Your task to perform on an android device: turn off notifications settings in the gmail app Image 0: 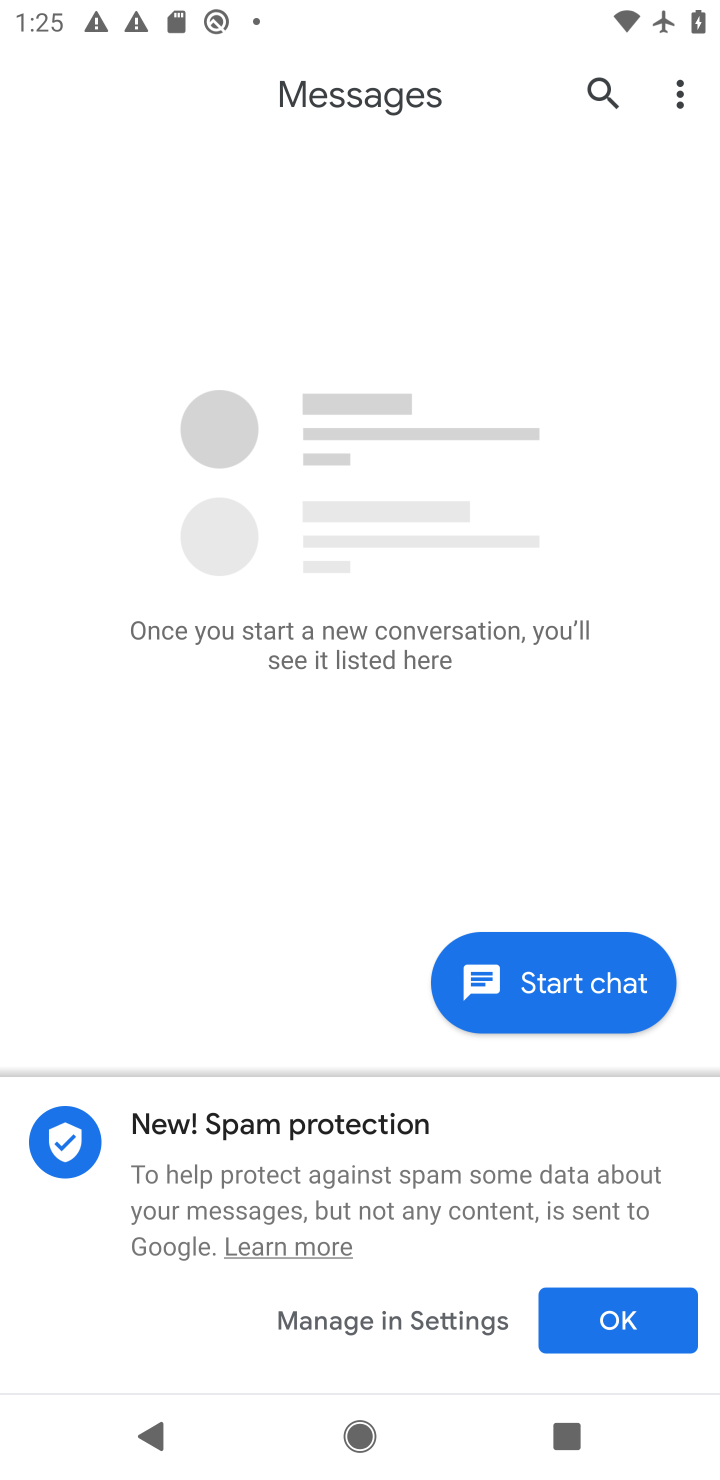
Step 0: press home button
Your task to perform on an android device: turn off notifications settings in the gmail app Image 1: 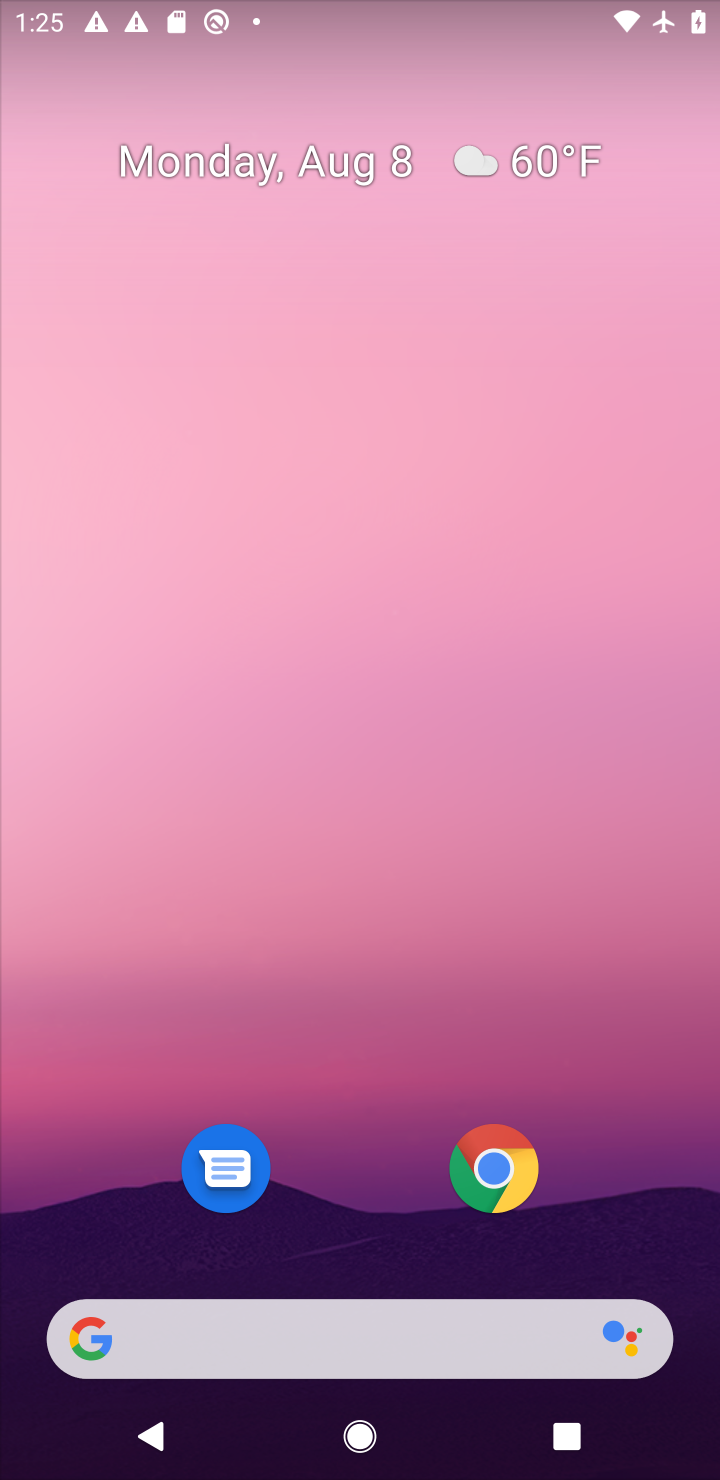
Step 1: drag from (424, 1222) to (456, 365)
Your task to perform on an android device: turn off notifications settings in the gmail app Image 2: 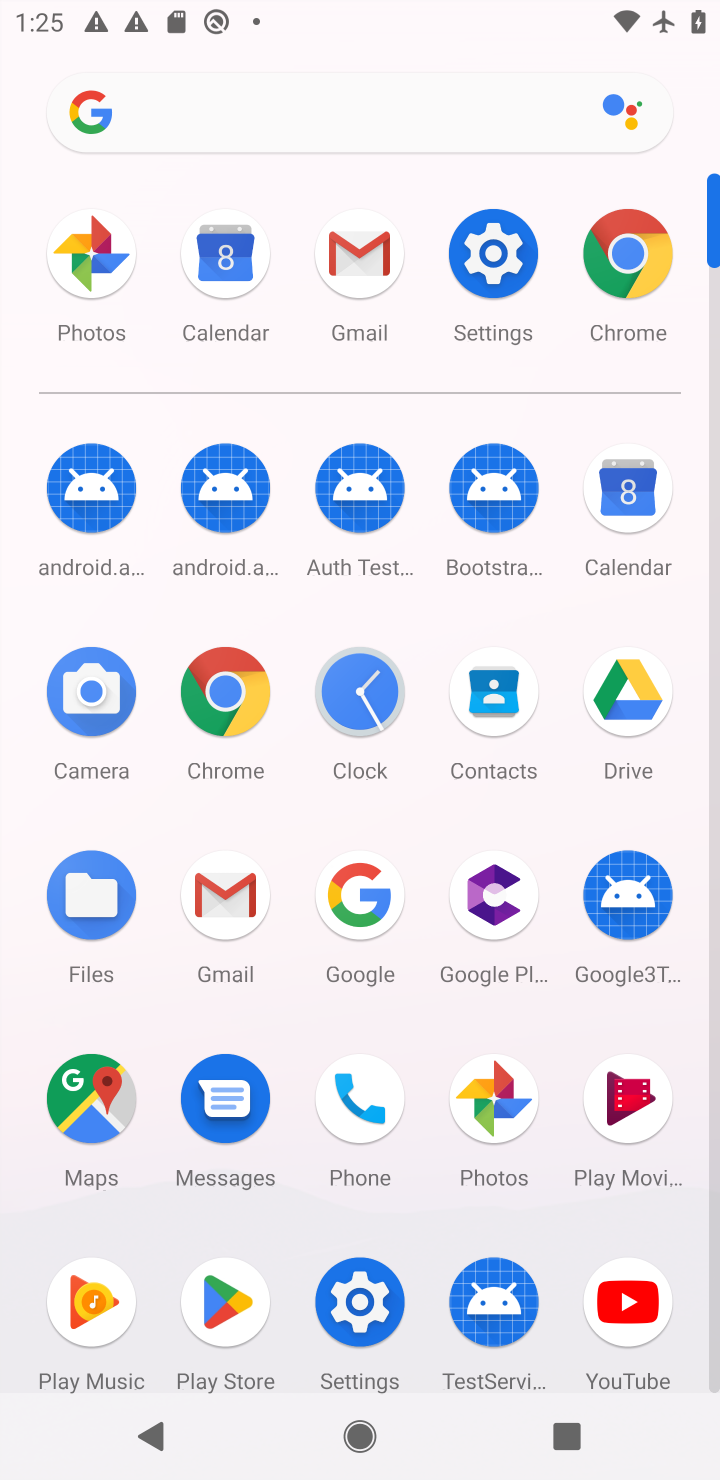
Step 2: click (225, 911)
Your task to perform on an android device: turn off notifications settings in the gmail app Image 3: 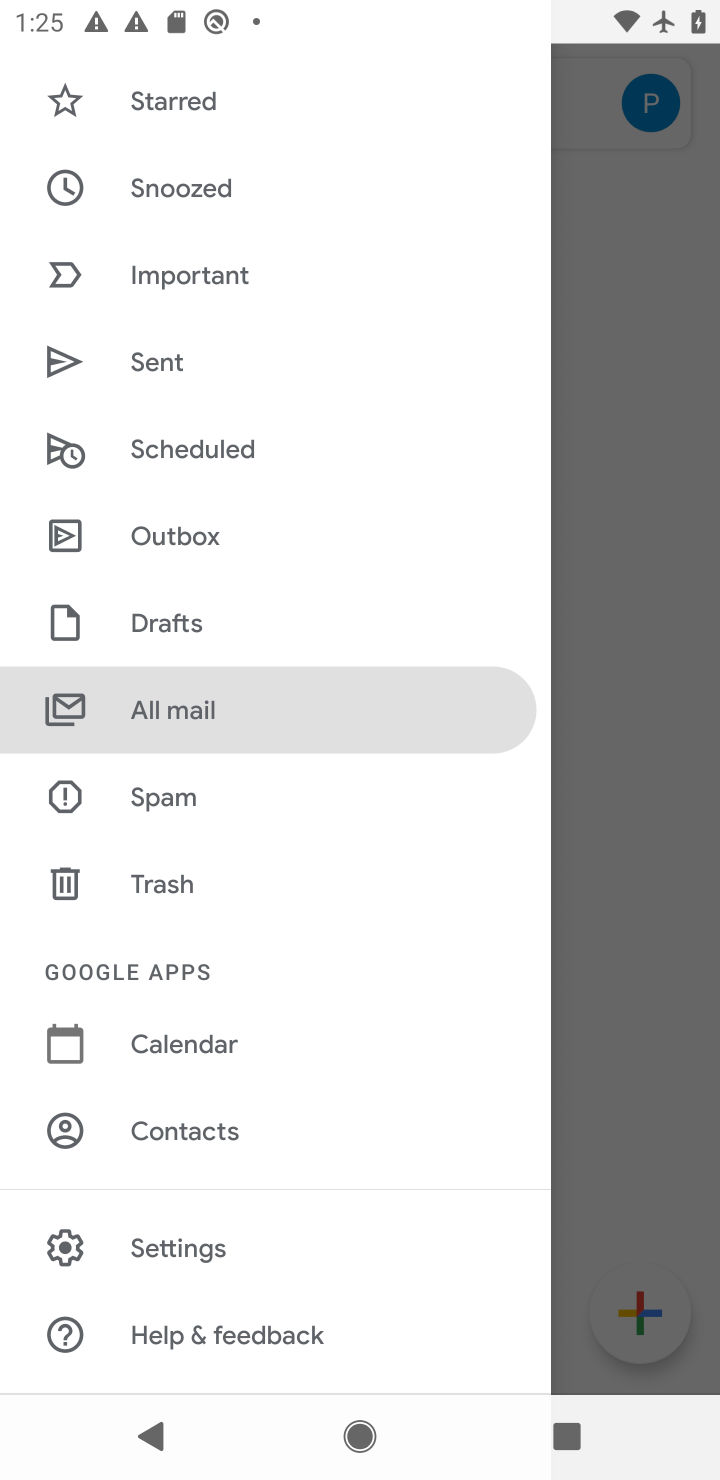
Step 3: click (256, 1225)
Your task to perform on an android device: turn off notifications settings in the gmail app Image 4: 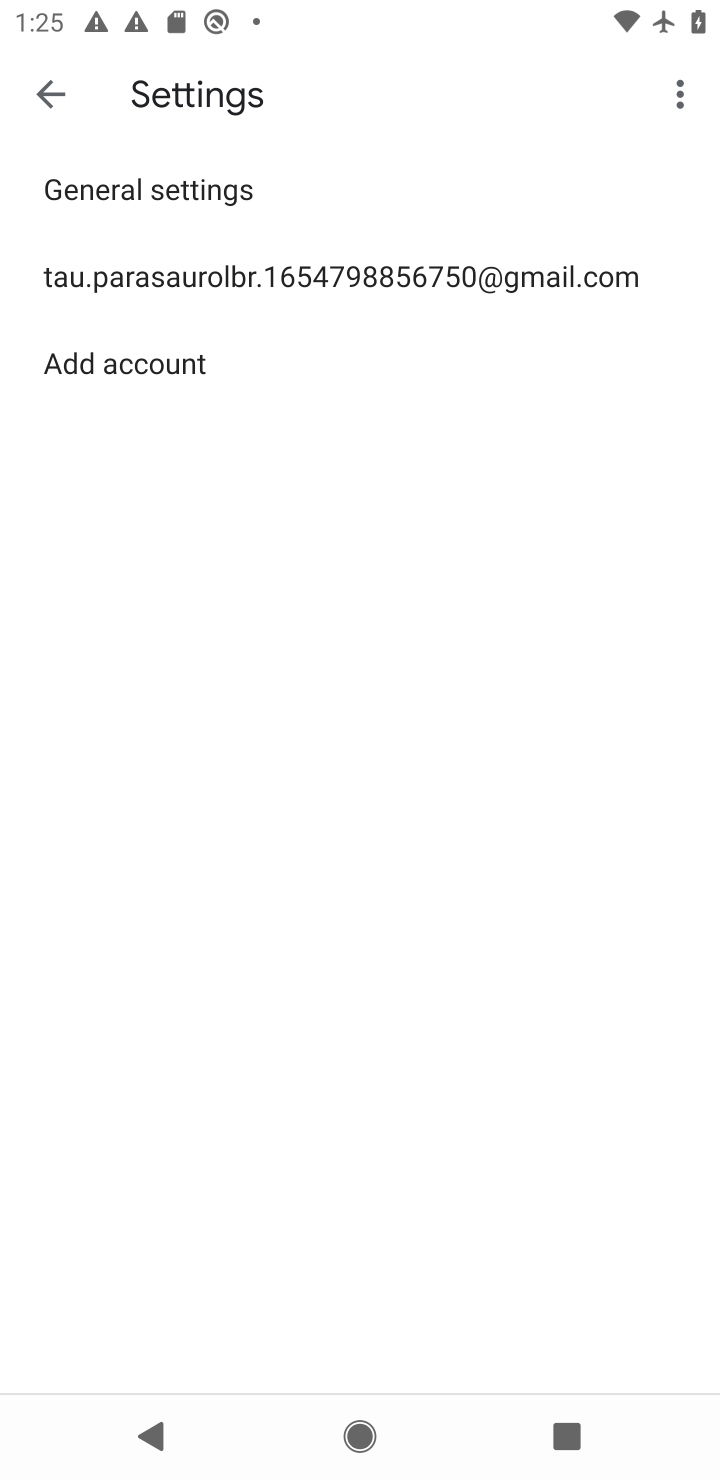
Step 4: click (300, 309)
Your task to perform on an android device: turn off notifications settings in the gmail app Image 5: 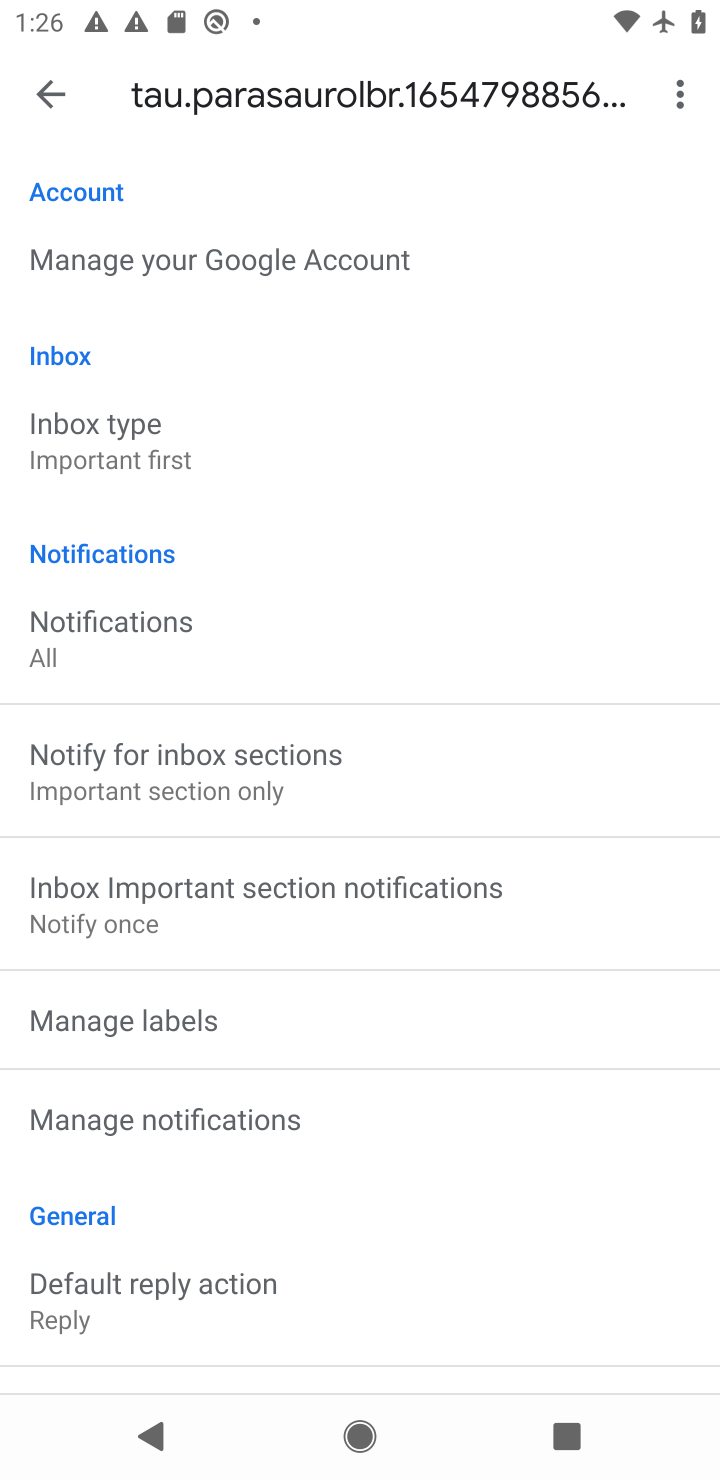
Step 5: task complete